Your task to perform on an android device: Open the phone app and click the voicemail tab. Image 0: 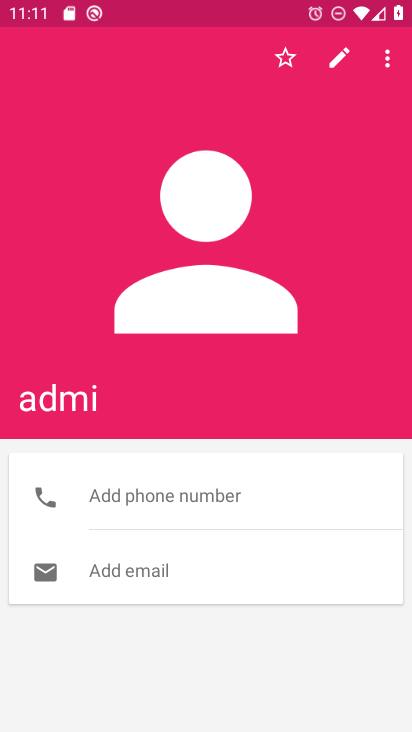
Step 0: press home button
Your task to perform on an android device: Open the phone app and click the voicemail tab. Image 1: 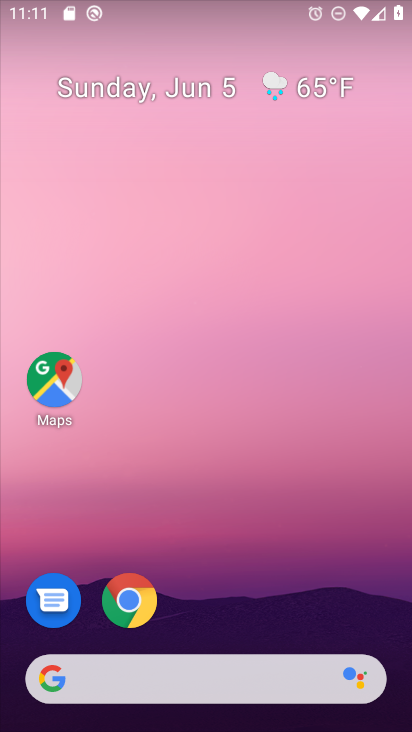
Step 1: drag from (382, 620) to (227, 12)
Your task to perform on an android device: Open the phone app and click the voicemail tab. Image 2: 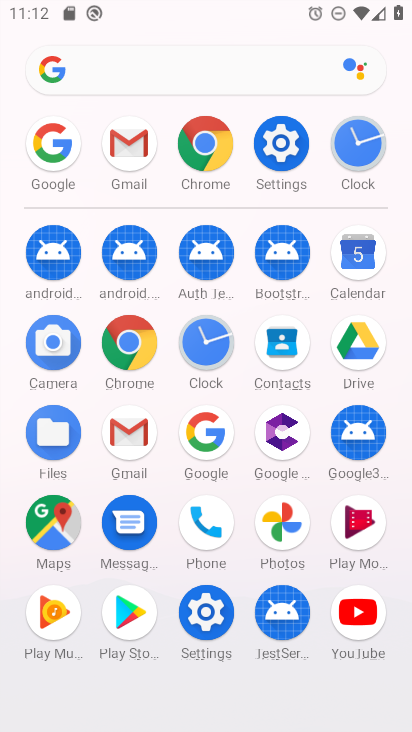
Step 2: click (215, 524)
Your task to perform on an android device: Open the phone app and click the voicemail tab. Image 3: 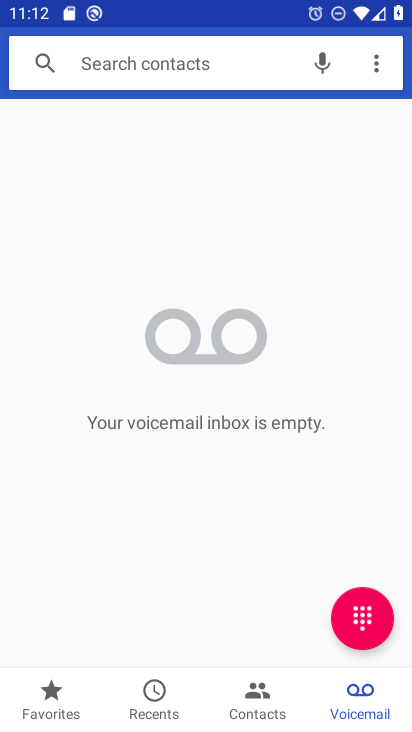
Step 3: task complete